Your task to perform on an android device: install app "Google Pay: Save, Pay, Manage" Image 0: 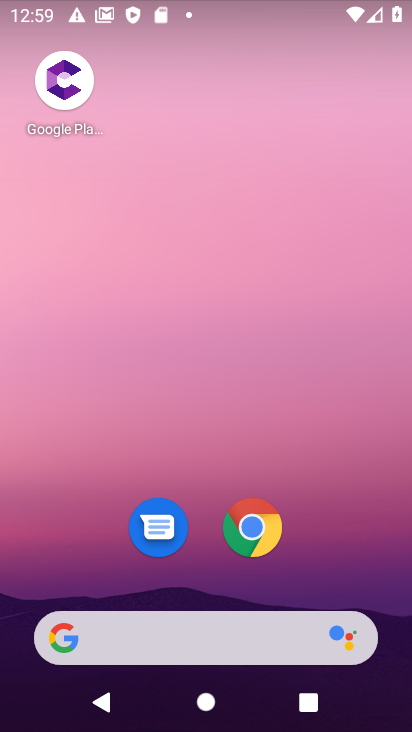
Step 0: drag from (242, 625) to (252, 98)
Your task to perform on an android device: install app "Google Pay: Save, Pay, Manage" Image 1: 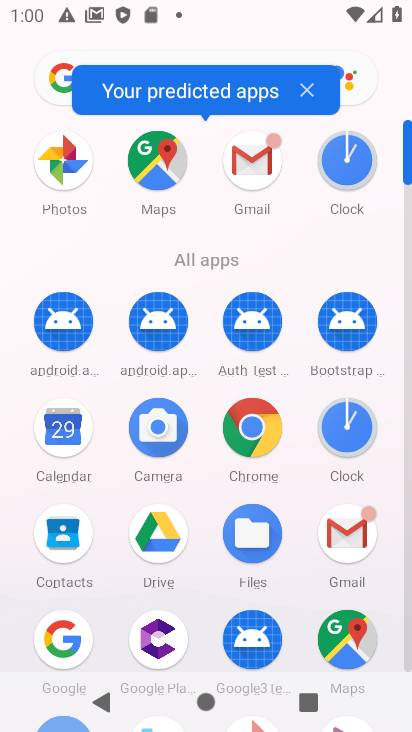
Step 1: drag from (292, 597) to (296, 268)
Your task to perform on an android device: install app "Google Pay: Save, Pay, Manage" Image 2: 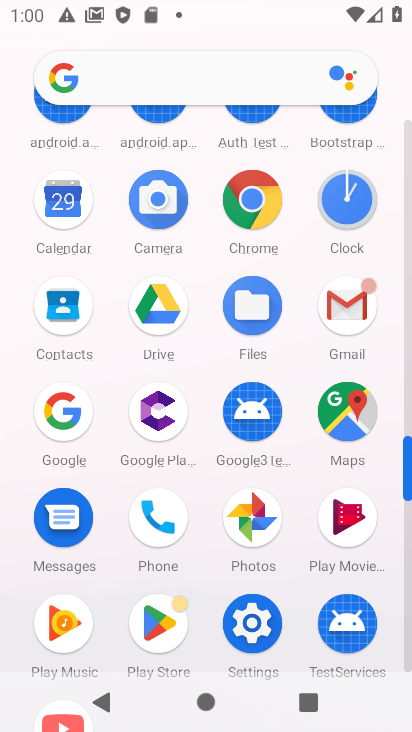
Step 2: click (154, 620)
Your task to perform on an android device: install app "Google Pay: Save, Pay, Manage" Image 3: 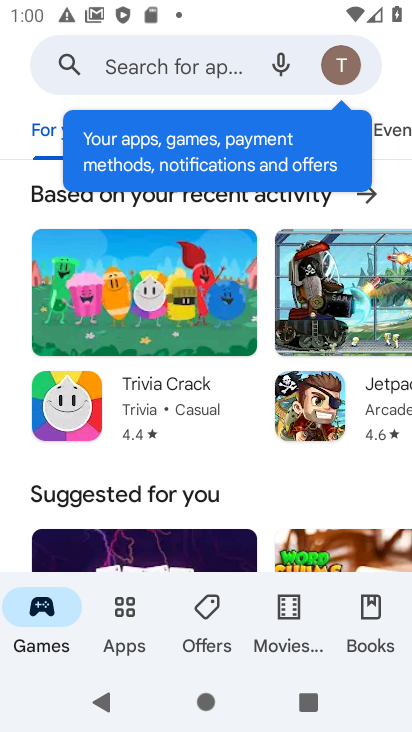
Step 3: click (226, 56)
Your task to perform on an android device: install app "Google Pay: Save, Pay, Manage" Image 4: 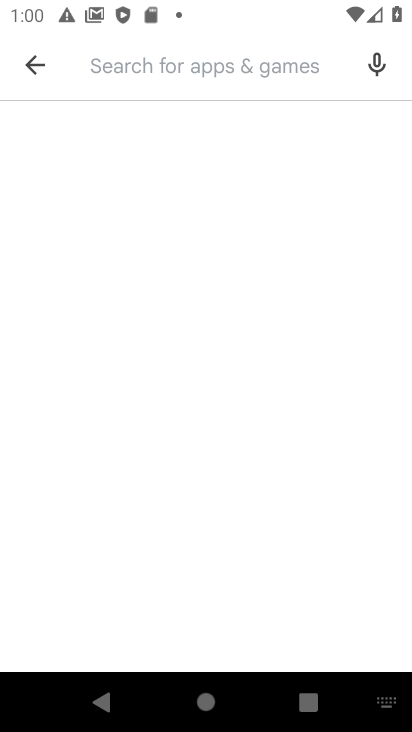
Step 4: type "Google Pay: Save, Pay, Manage"
Your task to perform on an android device: install app "Google Pay: Save, Pay, Manage" Image 5: 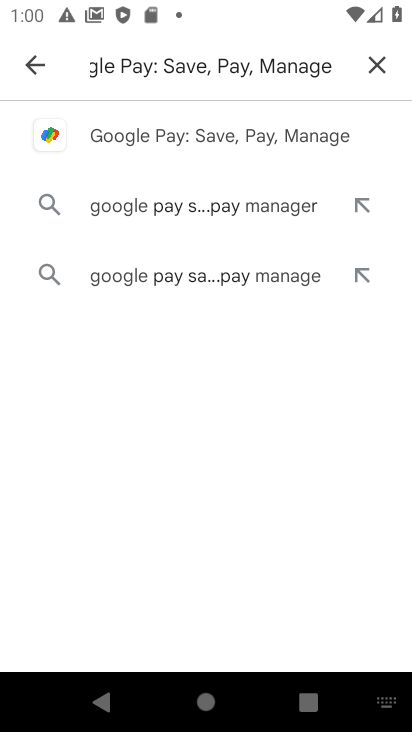
Step 5: click (238, 137)
Your task to perform on an android device: install app "Google Pay: Save, Pay, Manage" Image 6: 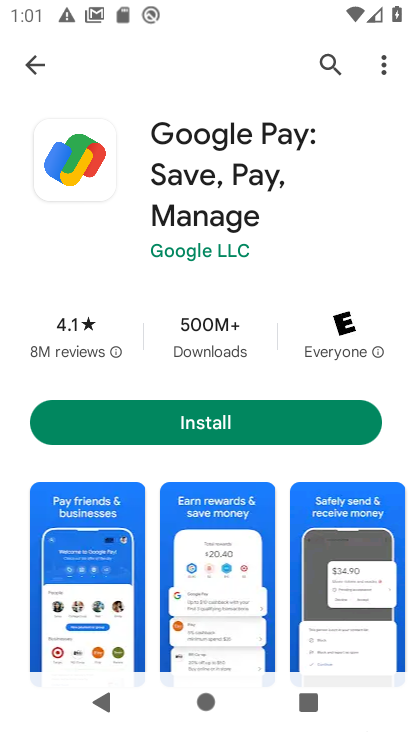
Step 6: click (203, 429)
Your task to perform on an android device: install app "Google Pay: Save, Pay, Manage" Image 7: 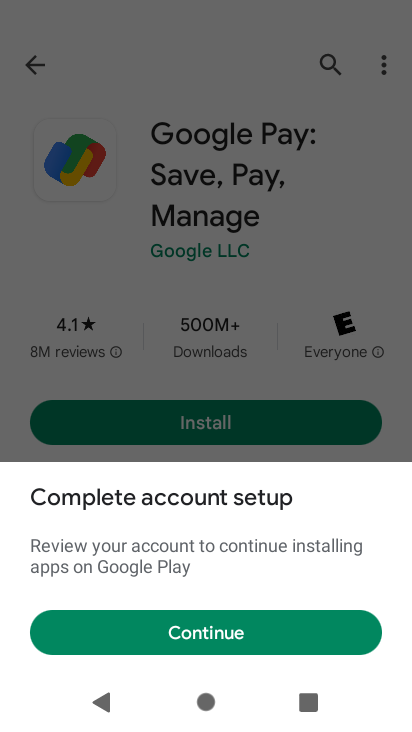
Step 7: click (215, 636)
Your task to perform on an android device: install app "Google Pay: Save, Pay, Manage" Image 8: 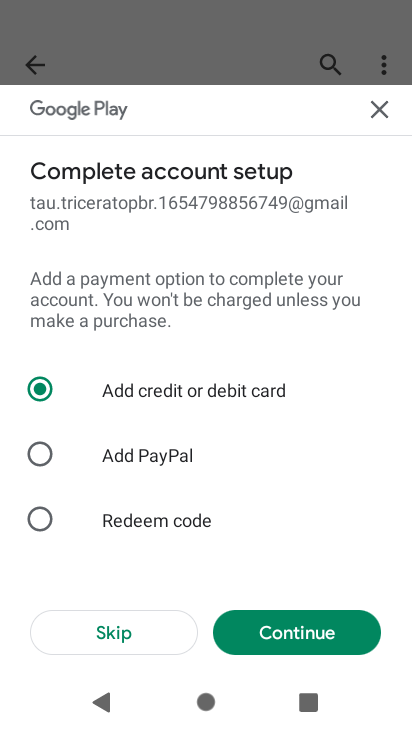
Step 8: click (113, 631)
Your task to perform on an android device: install app "Google Pay: Save, Pay, Manage" Image 9: 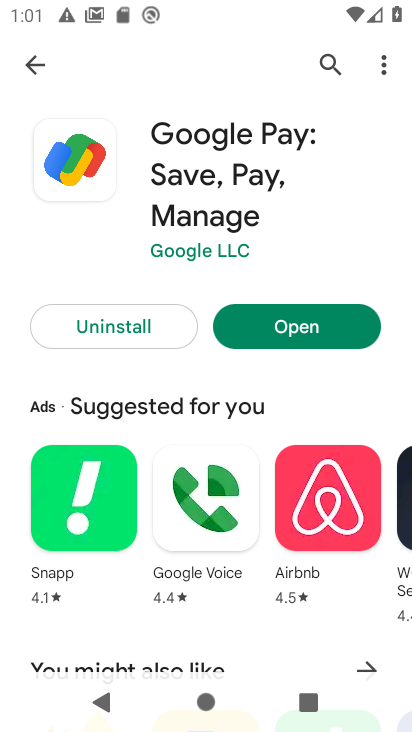
Step 9: task complete